Your task to perform on an android device: What's the weather? Image 0: 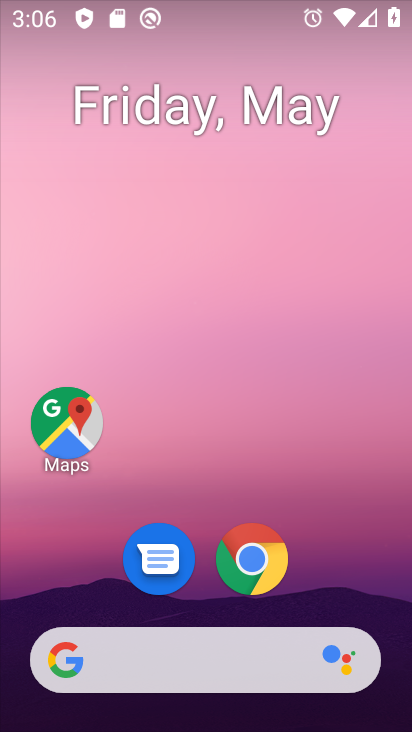
Step 0: drag from (355, 581) to (341, 227)
Your task to perform on an android device: What's the weather? Image 1: 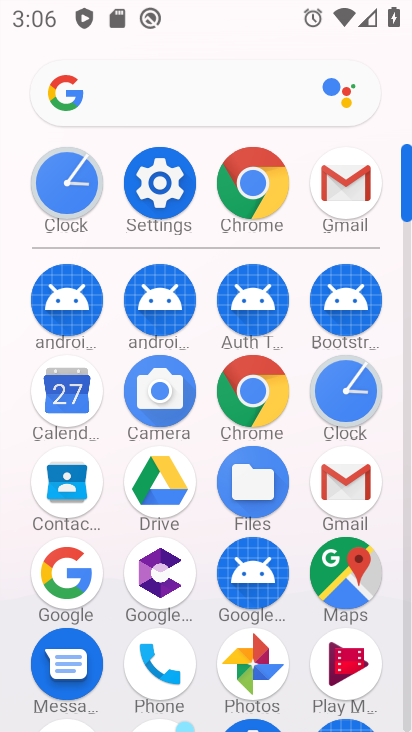
Step 1: click (147, 203)
Your task to perform on an android device: What's the weather? Image 2: 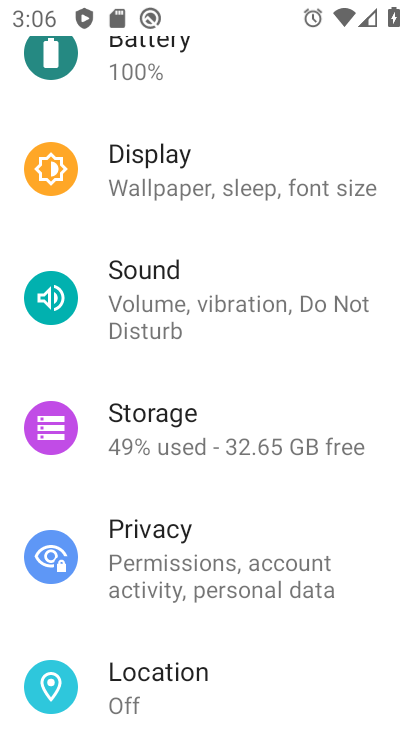
Step 2: drag from (265, 667) to (263, 244)
Your task to perform on an android device: What's the weather? Image 3: 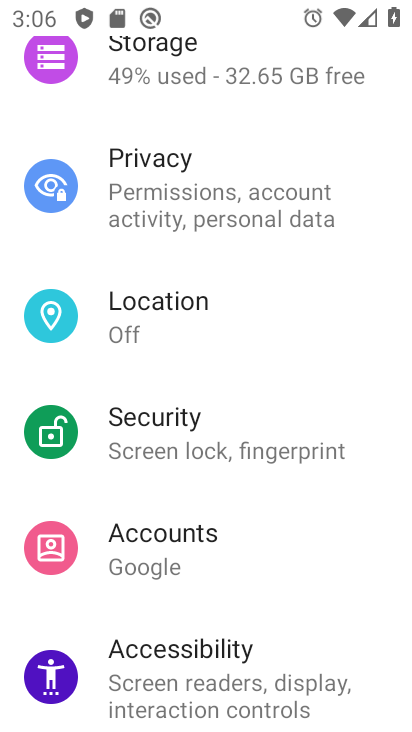
Step 3: drag from (232, 576) to (243, 257)
Your task to perform on an android device: What's the weather? Image 4: 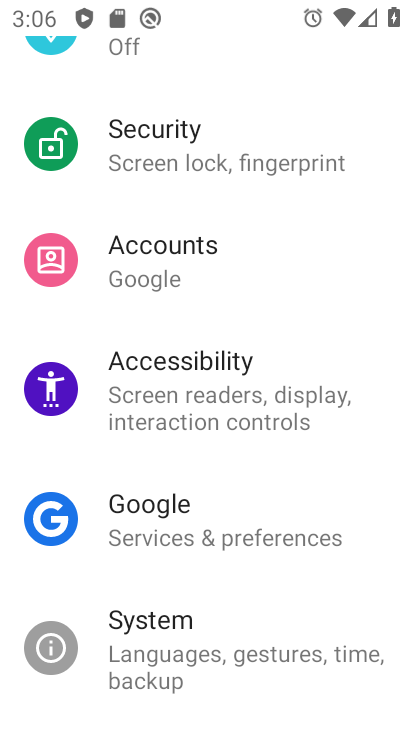
Step 4: drag from (220, 595) to (236, 175)
Your task to perform on an android device: What's the weather? Image 5: 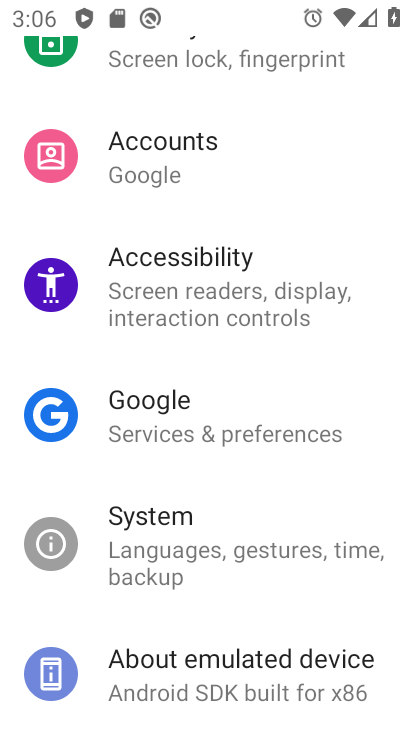
Step 5: drag from (186, 661) to (207, 499)
Your task to perform on an android device: What's the weather? Image 6: 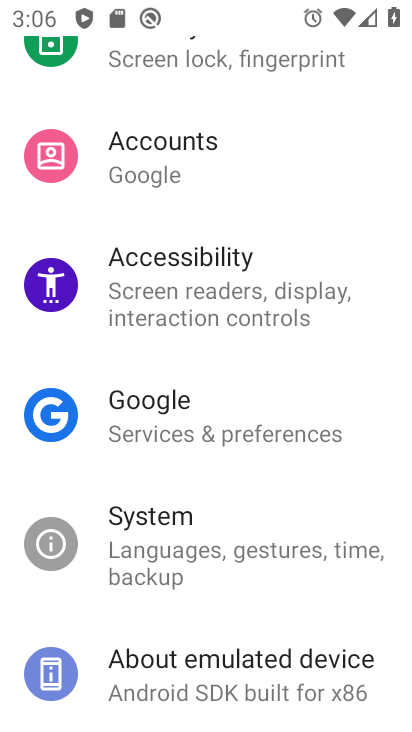
Step 6: press home button
Your task to perform on an android device: What's the weather? Image 7: 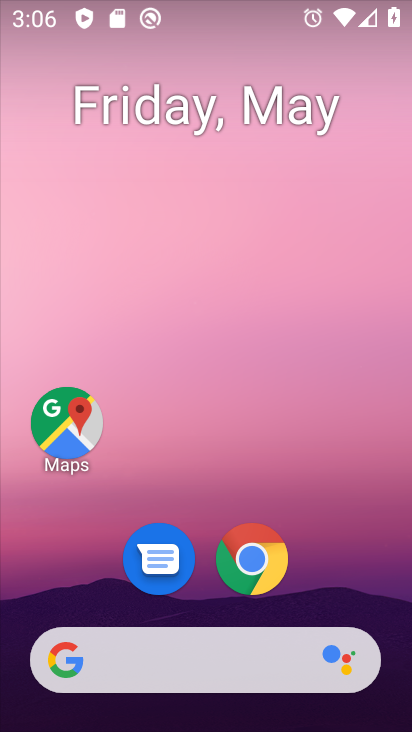
Step 7: click (258, 642)
Your task to perform on an android device: What's the weather? Image 8: 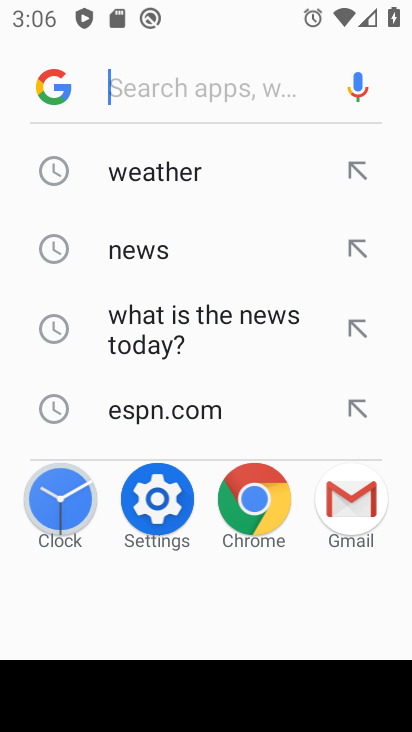
Step 8: press home button
Your task to perform on an android device: What's the weather? Image 9: 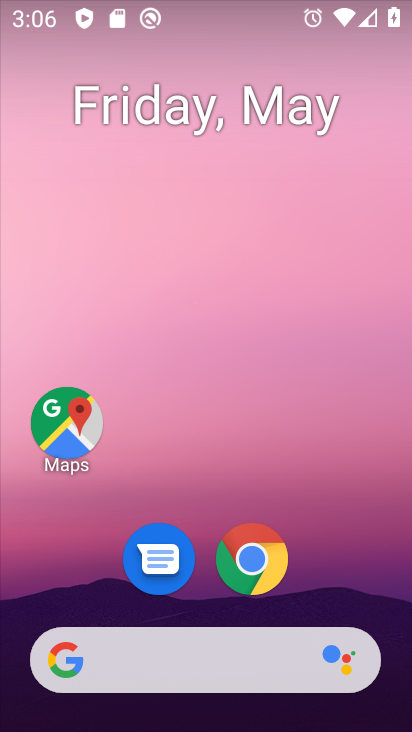
Step 9: drag from (226, 471) to (208, 259)
Your task to perform on an android device: What's the weather? Image 10: 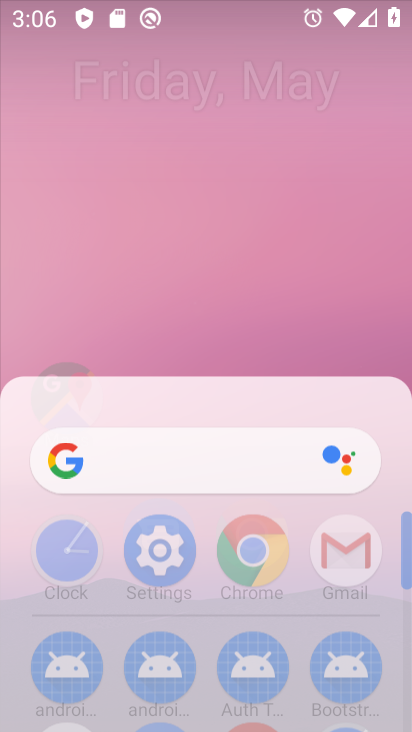
Step 10: drag from (208, 259) to (222, 220)
Your task to perform on an android device: What's the weather? Image 11: 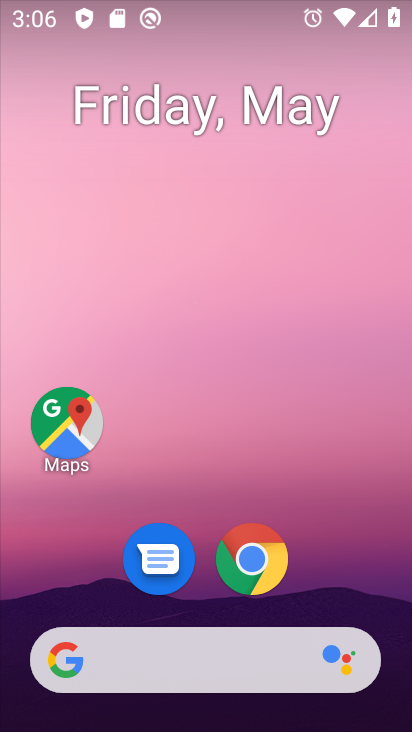
Step 11: drag from (331, 569) to (302, 137)
Your task to perform on an android device: What's the weather? Image 12: 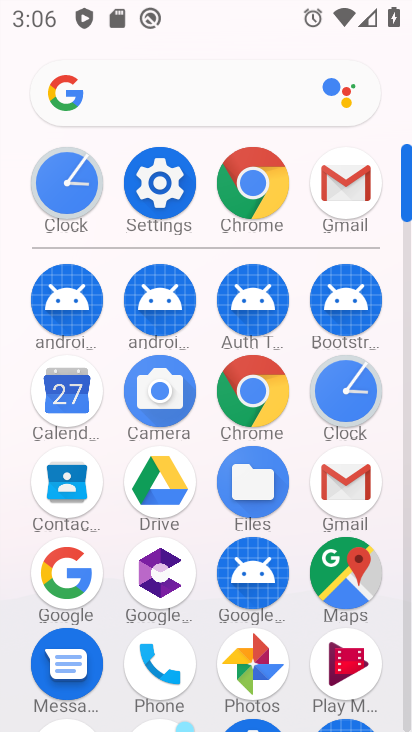
Step 12: click (74, 401)
Your task to perform on an android device: What's the weather? Image 13: 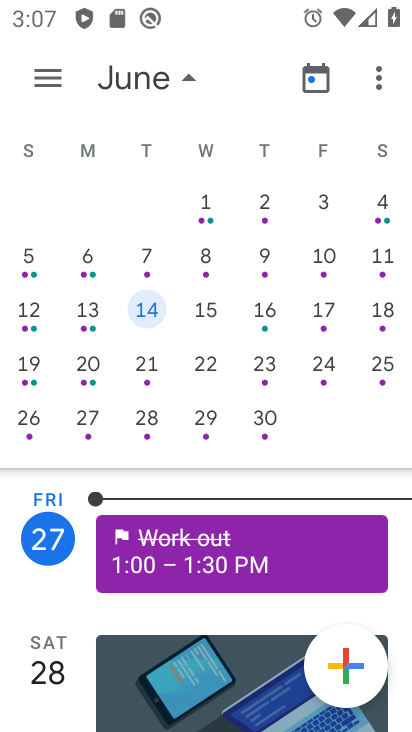
Step 13: click (28, 83)
Your task to perform on an android device: What's the weather? Image 14: 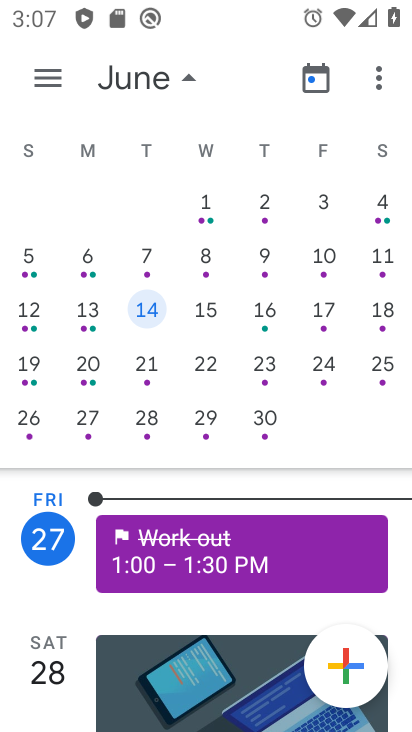
Step 14: click (48, 80)
Your task to perform on an android device: What's the weather? Image 15: 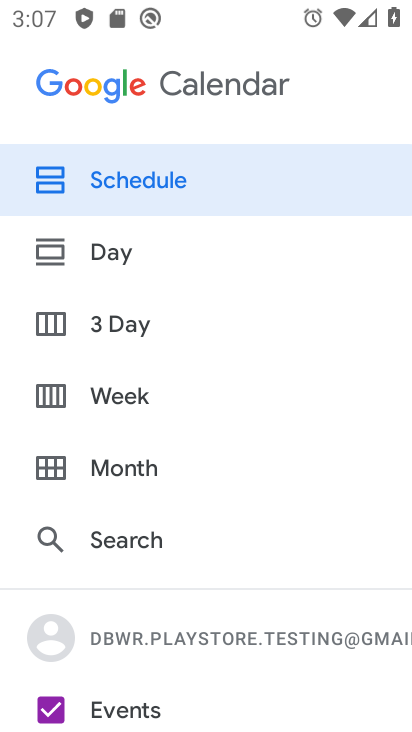
Step 15: click (118, 393)
Your task to perform on an android device: What's the weather? Image 16: 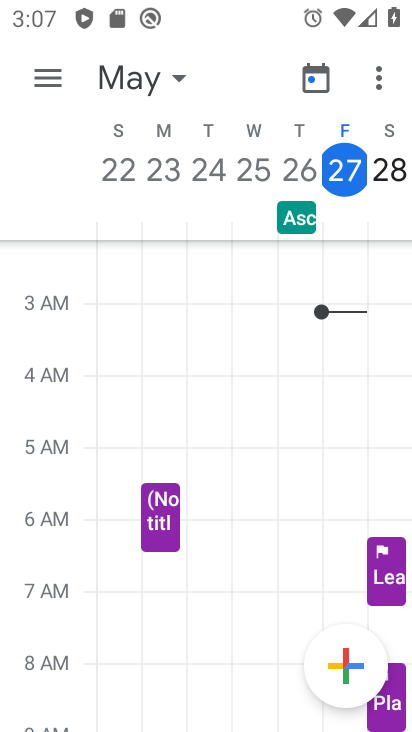
Step 16: task complete